Your task to perform on an android device: Go to CNN.com Image 0: 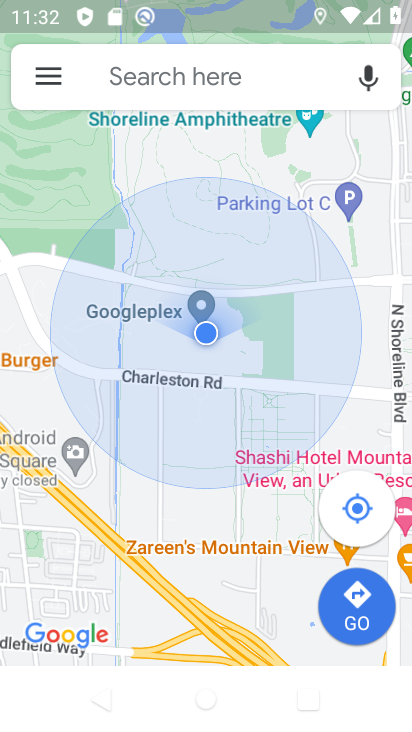
Step 0: press home button
Your task to perform on an android device: Go to CNN.com Image 1: 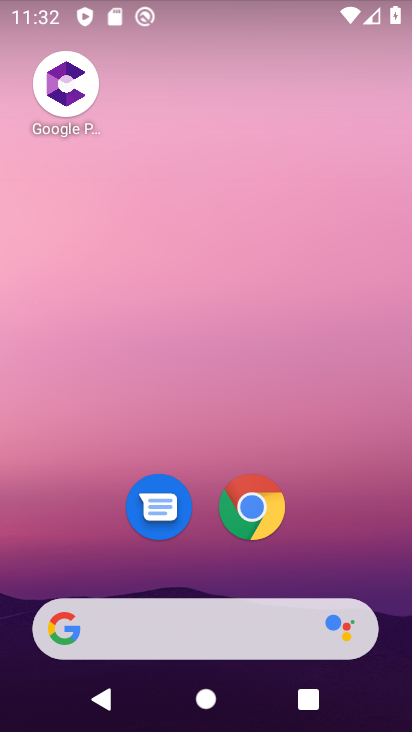
Step 1: click (267, 512)
Your task to perform on an android device: Go to CNN.com Image 2: 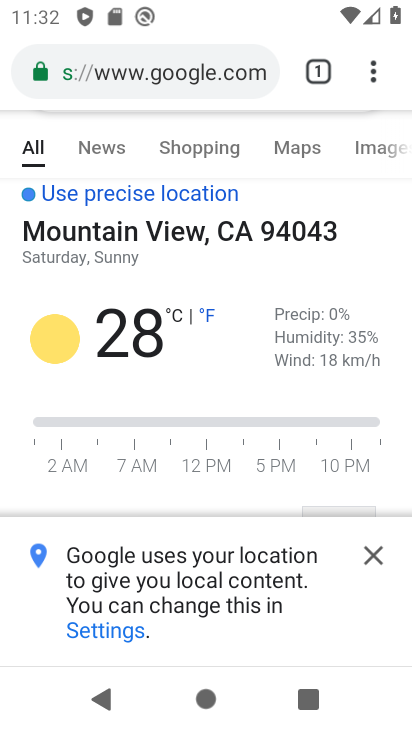
Step 2: click (198, 72)
Your task to perform on an android device: Go to CNN.com Image 3: 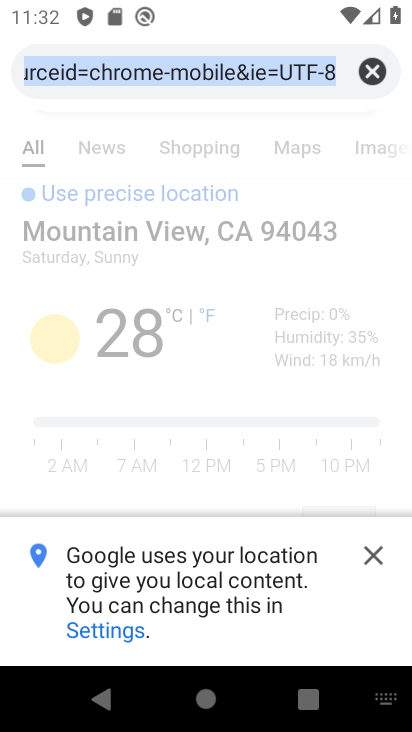
Step 3: type "CNN.com"
Your task to perform on an android device: Go to CNN.com Image 4: 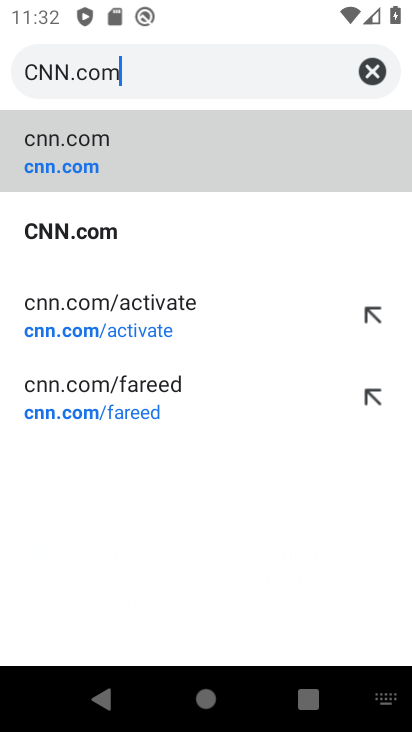
Step 4: click (30, 157)
Your task to perform on an android device: Go to CNN.com Image 5: 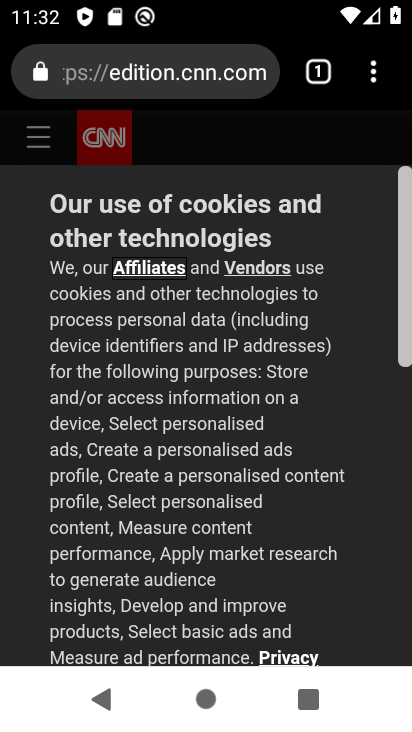
Step 5: task complete